Your task to perform on an android device: Add alienware area 51 to the cart on target.com, then select checkout. Image 0: 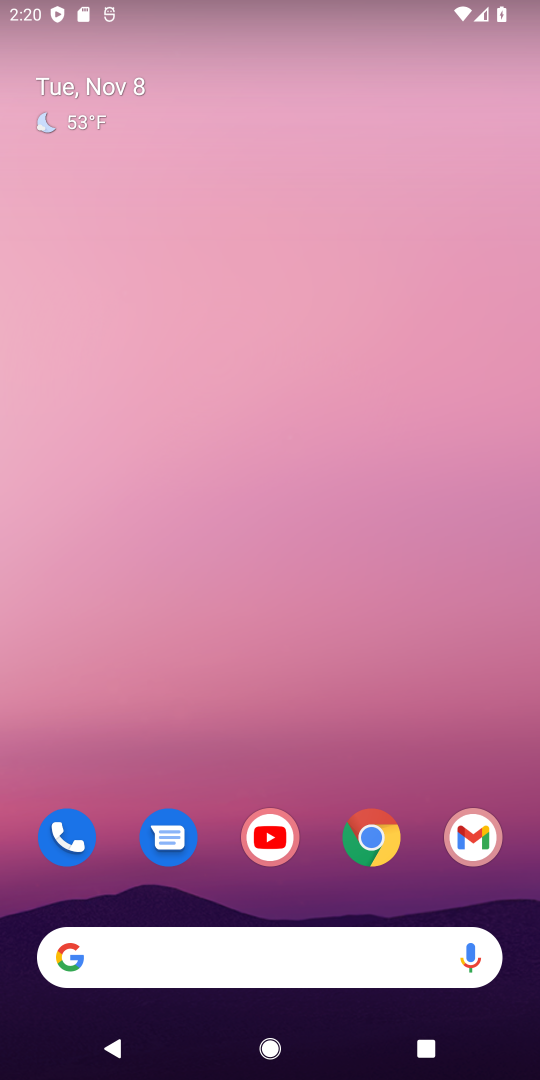
Step 0: click (367, 836)
Your task to perform on an android device: Add alienware area 51 to the cart on target.com, then select checkout. Image 1: 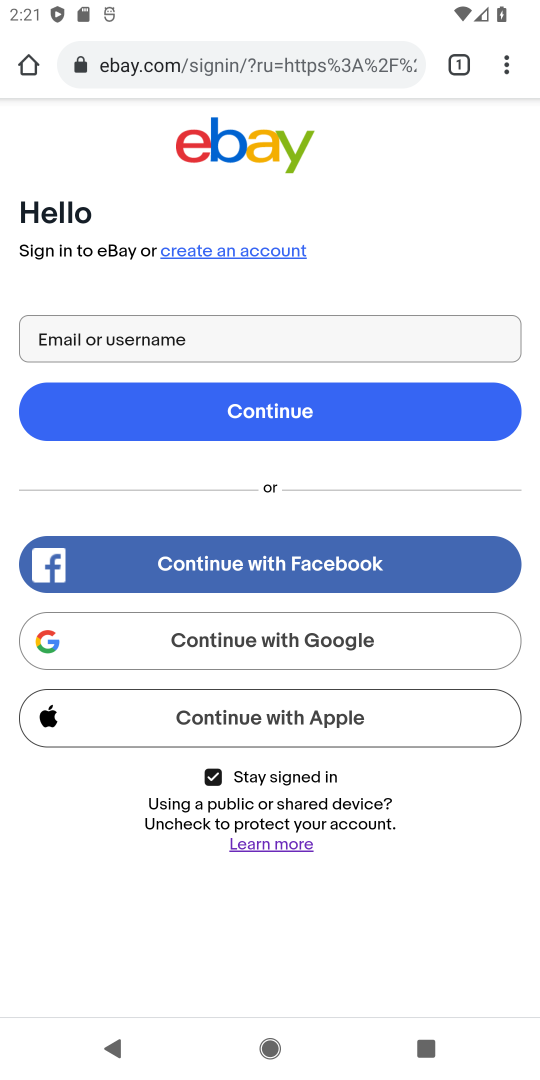
Step 1: press back button
Your task to perform on an android device: Add alienware area 51 to the cart on target.com, then select checkout. Image 2: 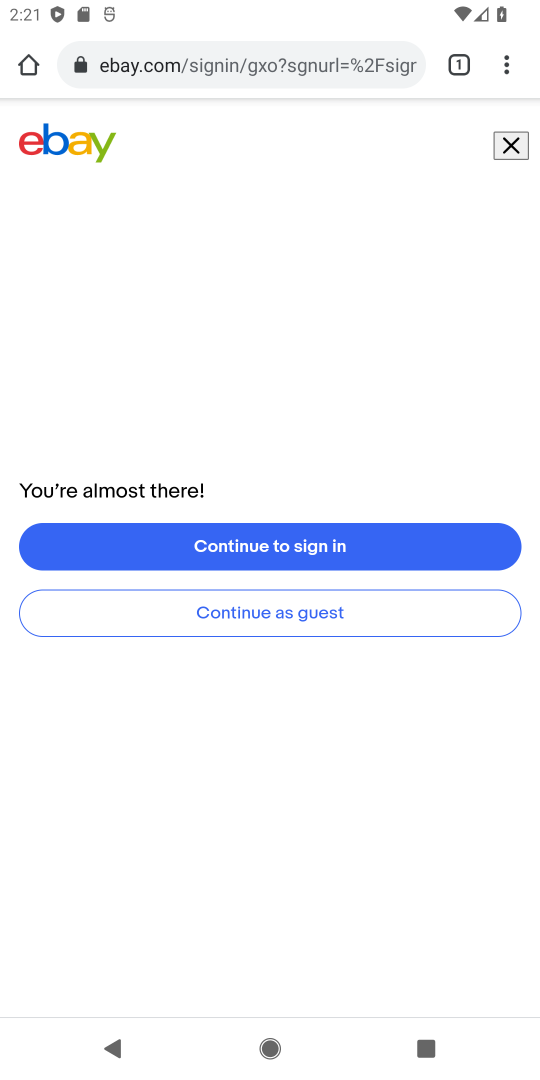
Step 2: click (161, 69)
Your task to perform on an android device: Add alienware area 51 to the cart on target.com, then select checkout. Image 3: 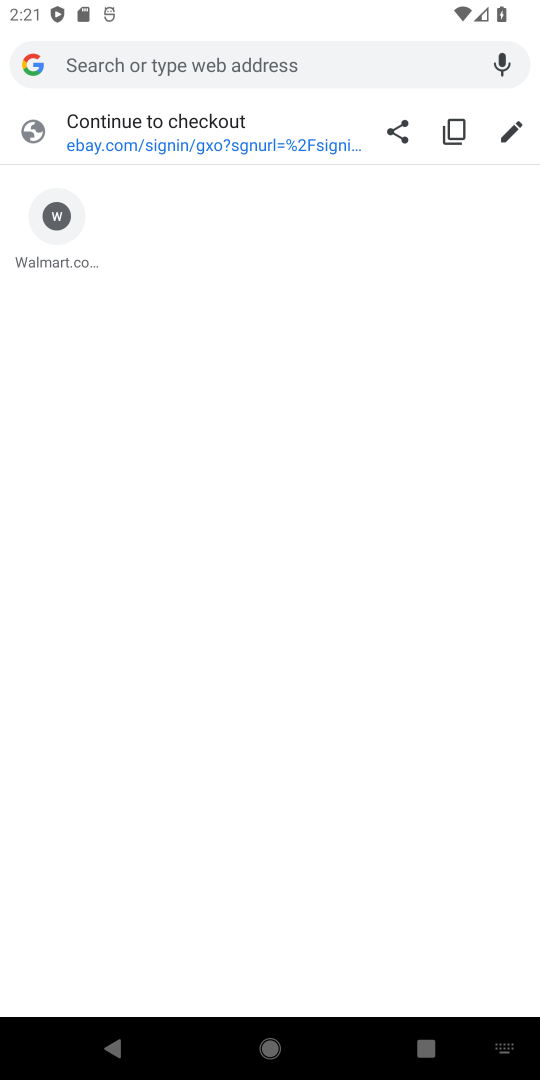
Step 3: type "target"
Your task to perform on an android device: Add alienware area 51 to the cart on target.com, then select checkout. Image 4: 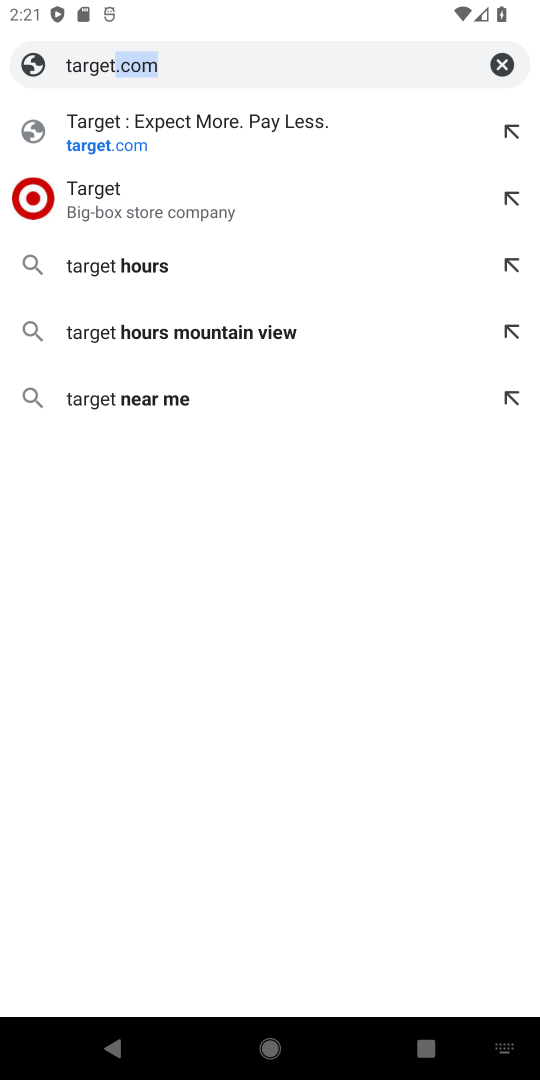
Step 4: click (75, 198)
Your task to perform on an android device: Add alienware area 51 to the cart on target.com, then select checkout. Image 5: 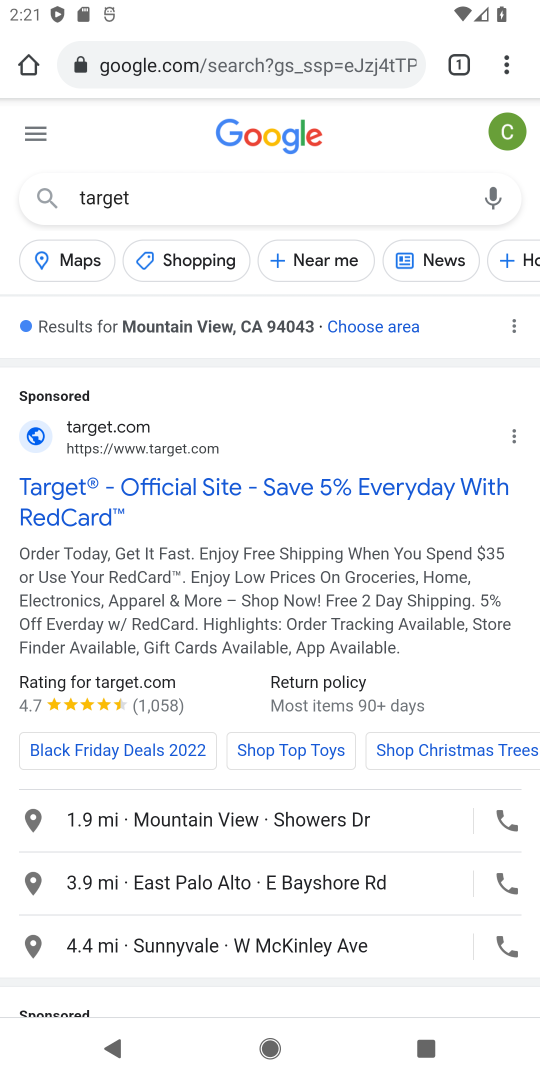
Step 5: click (174, 489)
Your task to perform on an android device: Add alienware area 51 to the cart on target.com, then select checkout. Image 6: 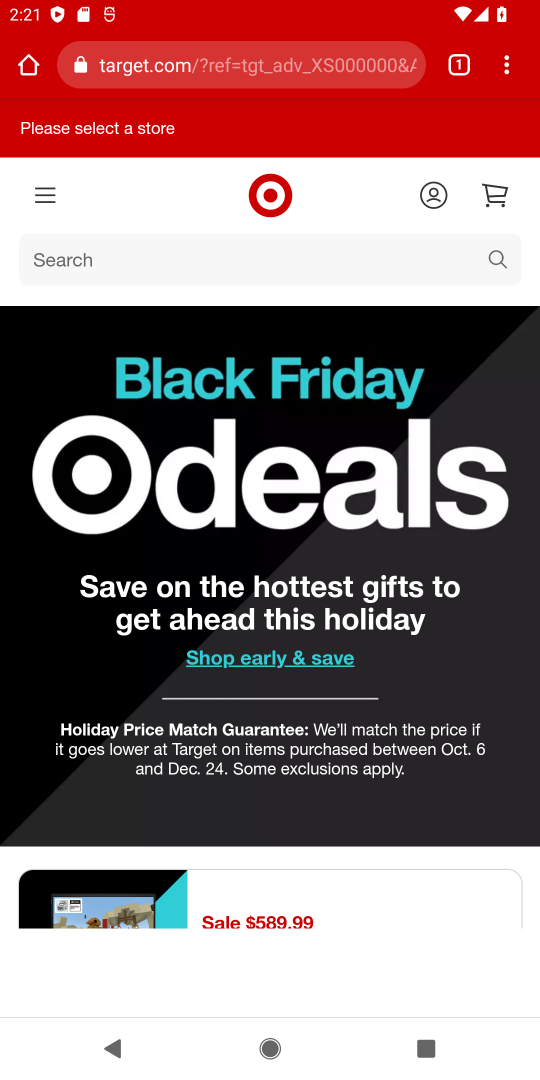
Step 6: click (316, 261)
Your task to perform on an android device: Add alienware area 51 to the cart on target.com, then select checkout. Image 7: 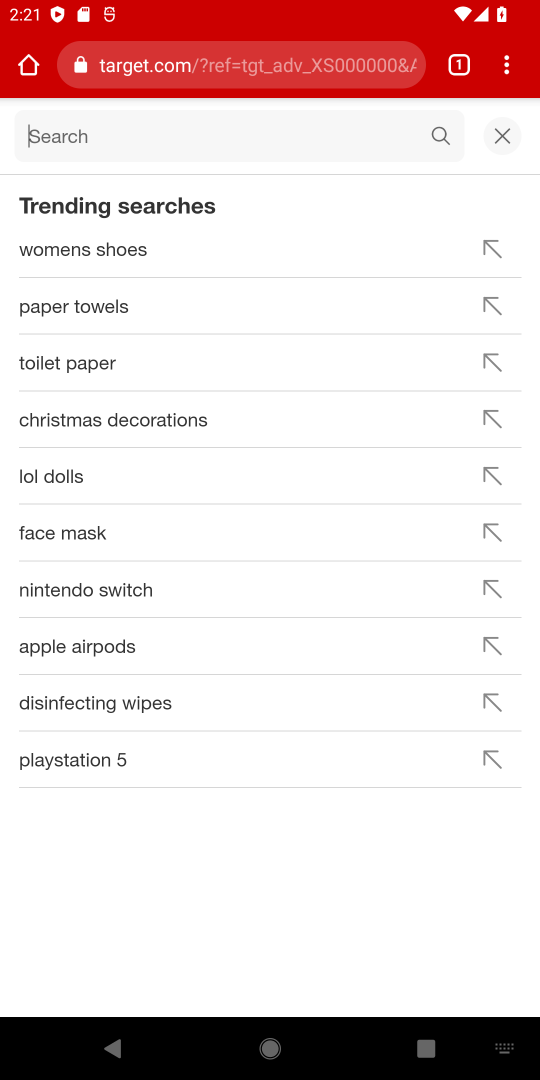
Step 7: type "alienware area 51"
Your task to perform on an android device: Add alienware area 51 to the cart on target.com, then select checkout. Image 8: 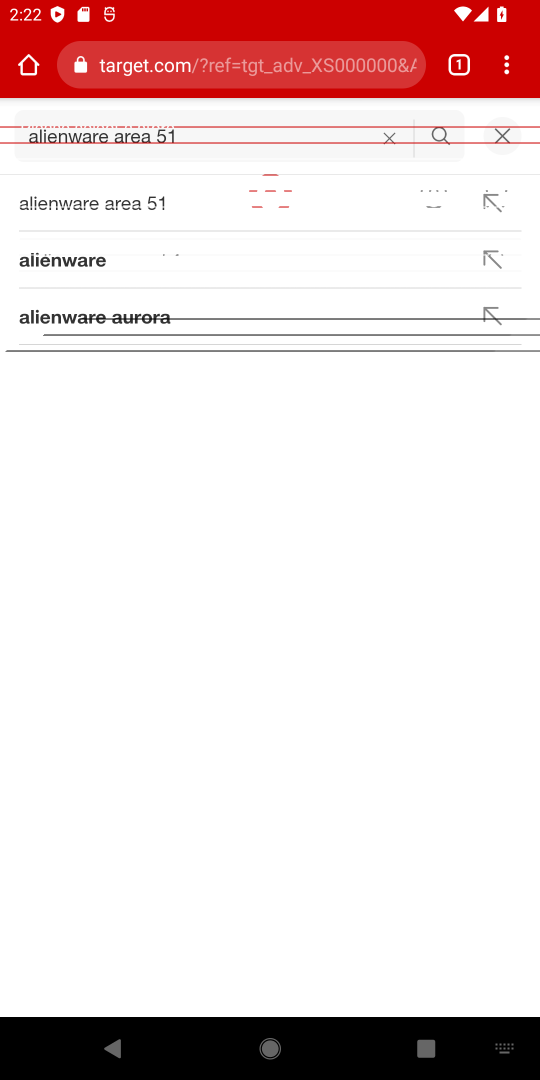
Step 8: click (82, 202)
Your task to perform on an android device: Add alienware area 51 to the cart on target.com, then select checkout. Image 9: 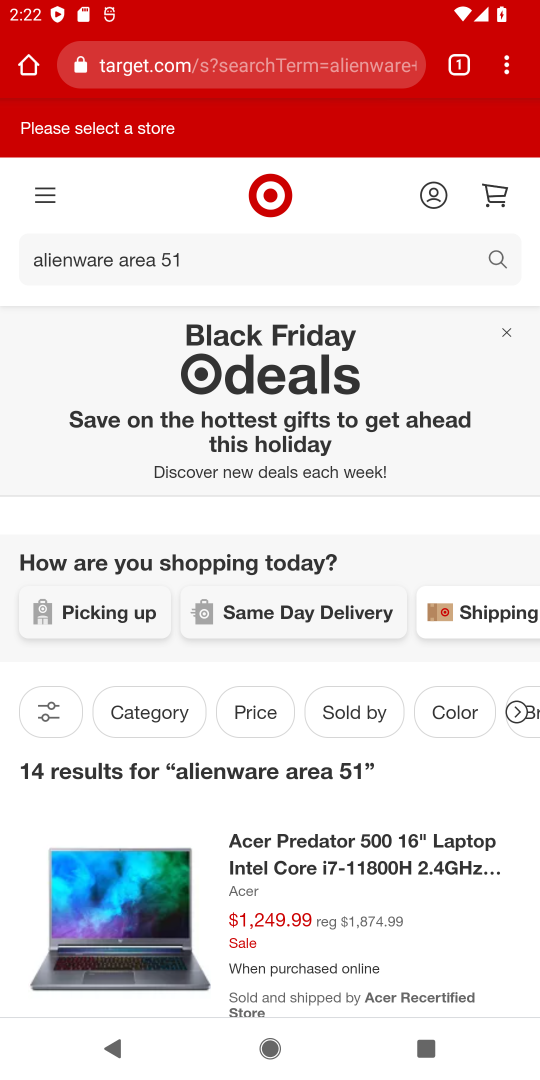
Step 9: drag from (199, 952) to (196, 342)
Your task to perform on an android device: Add alienware area 51 to the cart on target.com, then select checkout. Image 10: 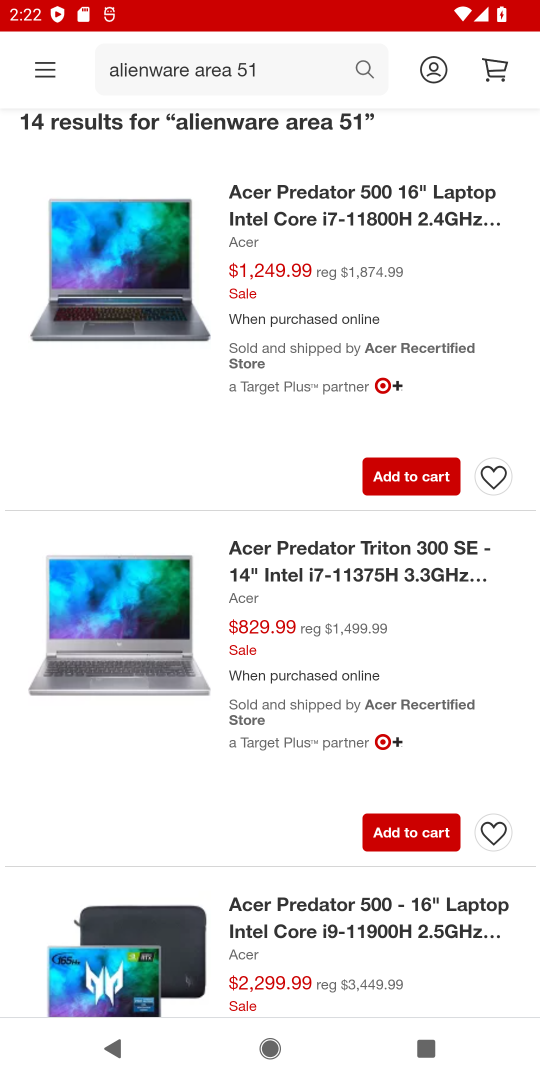
Step 10: click (256, 191)
Your task to perform on an android device: Add alienware area 51 to the cart on target.com, then select checkout. Image 11: 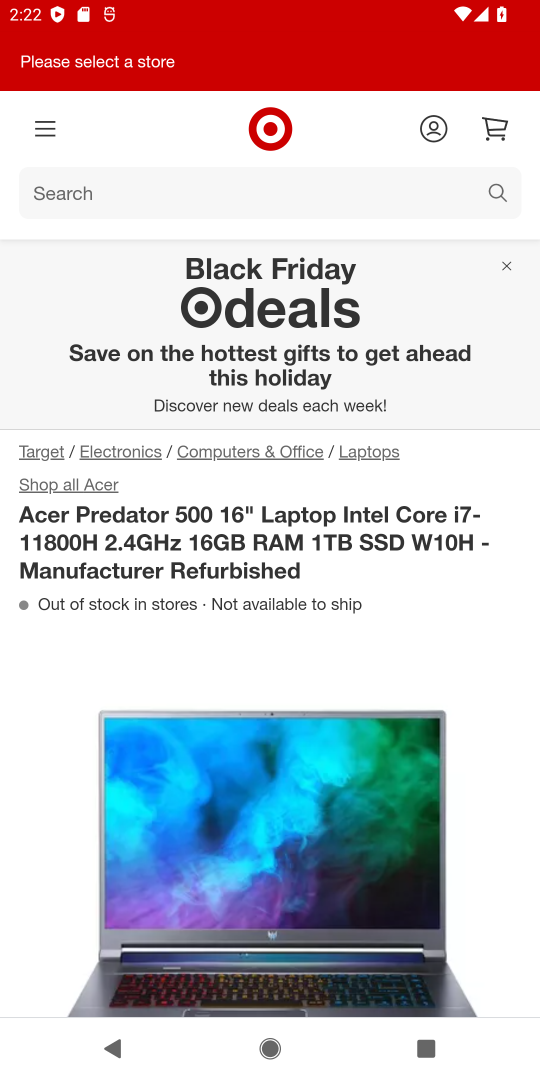
Step 11: drag from (238, 766) to (266, 461)
Your task to perform on an android device: Add alienware area 51 to the cart on target.com, then select checkout. Image 12: 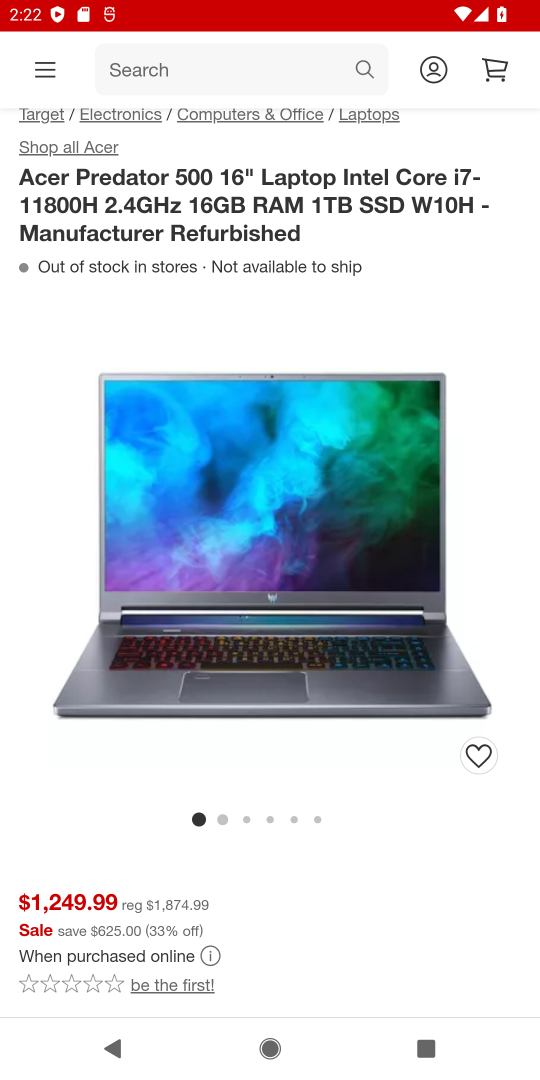
Step 12: drag from (137, 739) to (185, 289)
Your task to perform on an android device: Add alienware area 51 to the cart on target.com, then select checkout. Image 13: 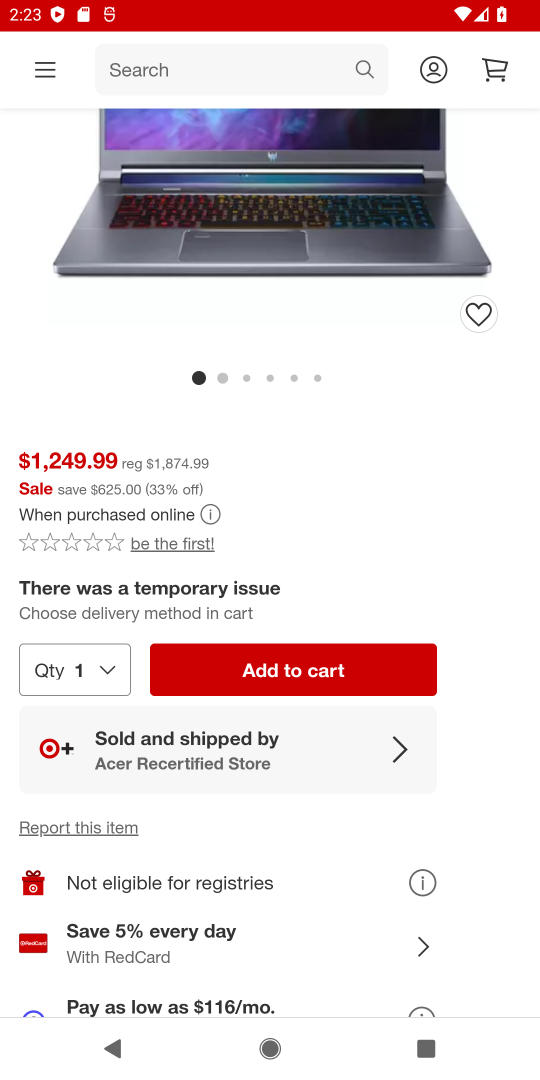
Step 13: click (257, 688)
Your task to perform on an android device: Add alienware area 51 to the cart on target.com, then select checkout. Image 14: 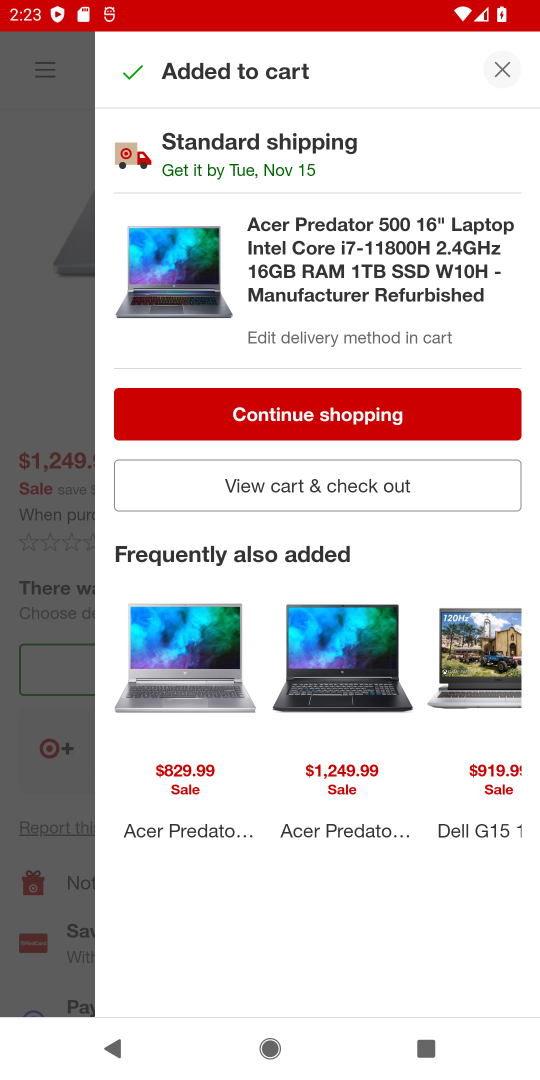
Step 14: click (300, 490)
Your task to perform on an android device: Add alienware area 51 to the cart on target.com, then select checkout. Image 15: 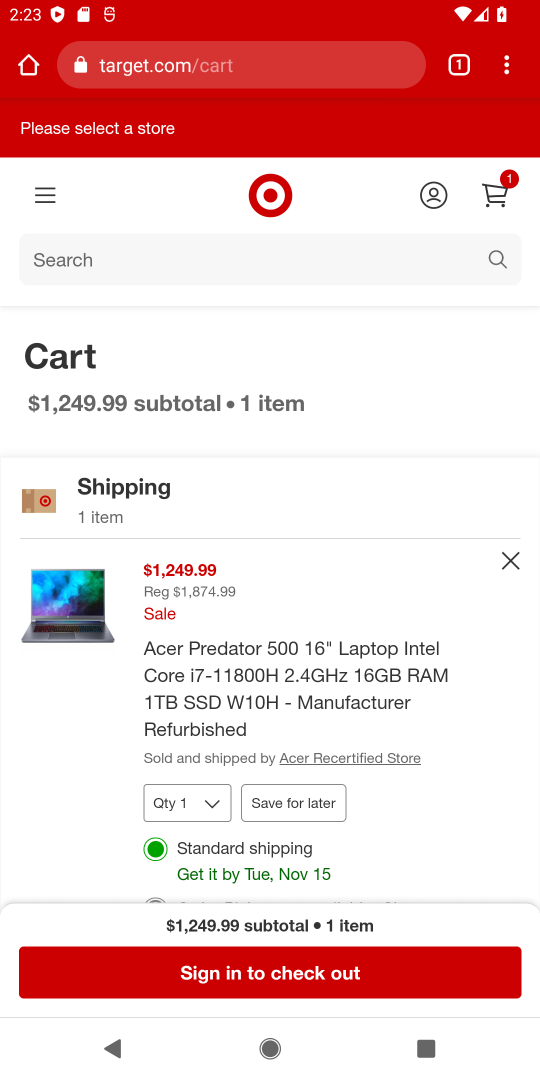
Step 15: click (299, 983)
Your task to perform on an android device: Add alienware area 51 to the cart on target.com, then select checkout. Image 16: 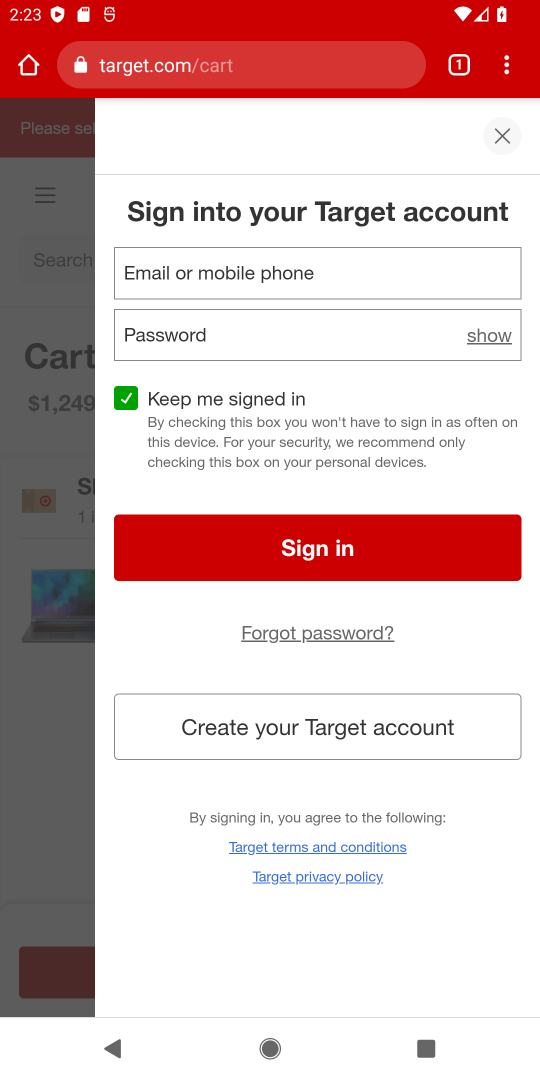
Step 16: click (494, 136)
Your task to perform on an android device: Add alienware area 51 to the cart on target.com, then select checkout. Image 17: 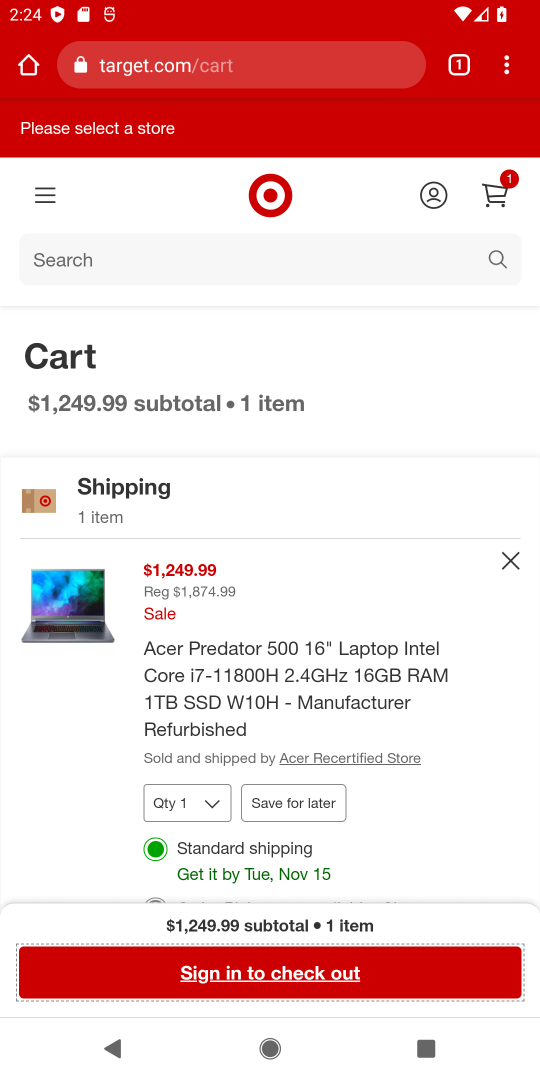
Step 17: task complete